Your task to perform on an android device: change the clock display to show seconds Image 0: 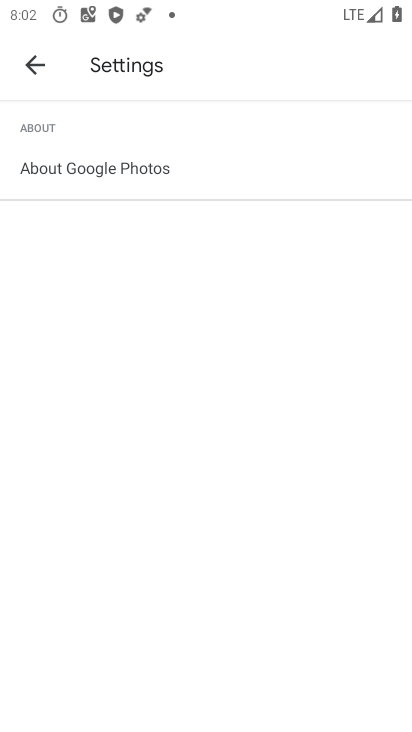
Step 0: press home button
Your task to perform on an android device: change the clock display to show seconds Image 1: 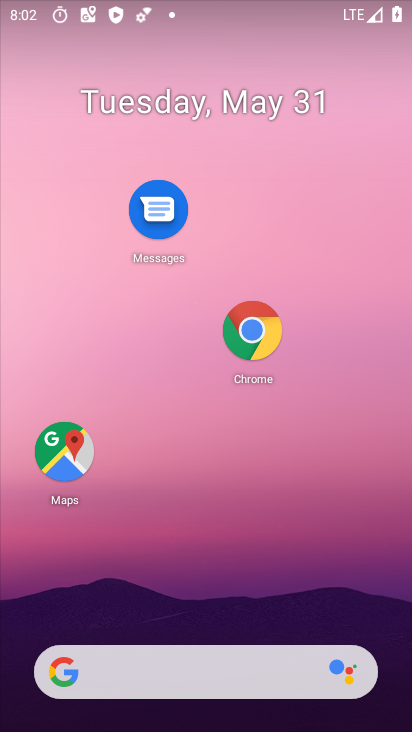
Step 1: drag from (226, 574) to (254, 106)
Your task to perform on an android device: change the clock display to show seconds Image 2: 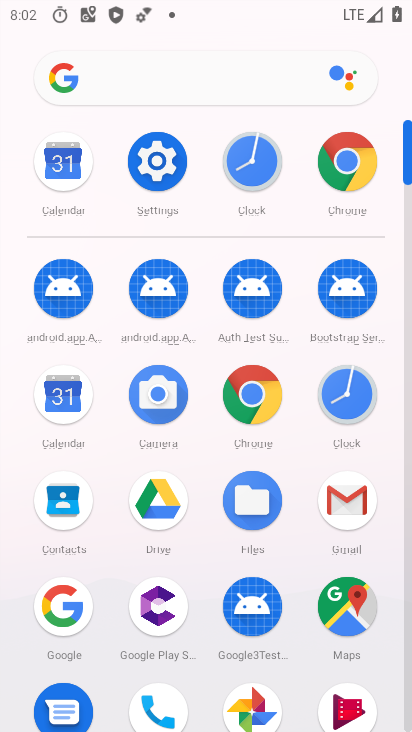
Step 2: click (345, 395)
Your task to perform on an android device: change the clock display to show seconds Image 3: 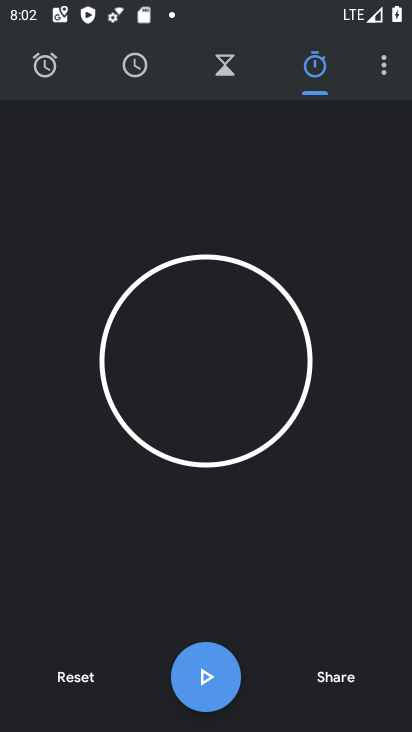
Step 3: click (377, 73)
Your task to perform on an android device: change the clock display to show seconds Image 4: 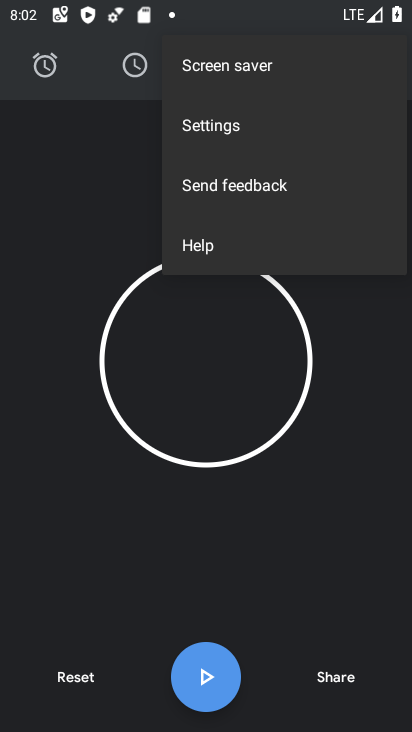
Step 4: click (246, 133)
Your task to perform on an android device: change the clock display to show seconds Image 5: 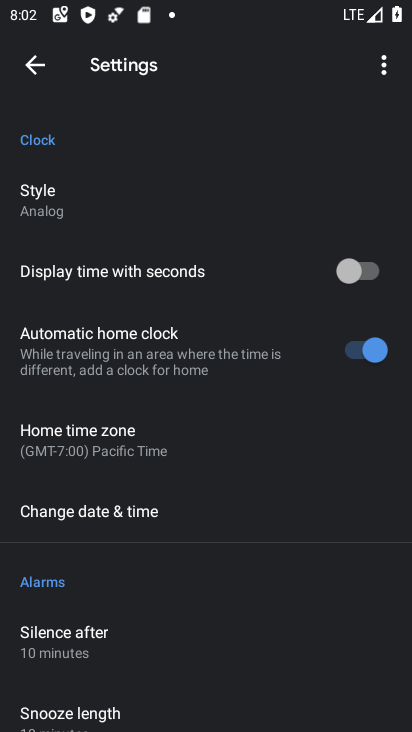
Step 5: click (374, 261)
Your task to perform on an android device: change the clock display to show seconds Image 6: 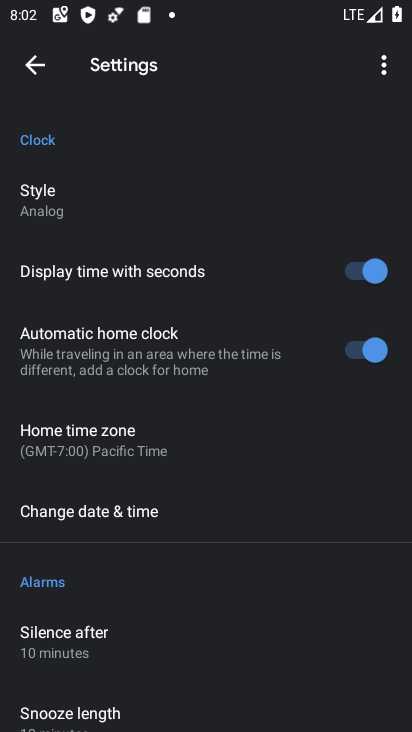
Step 6: task complete